Your task to perform on an android device: toggle javascript in the chrome app Image 0: 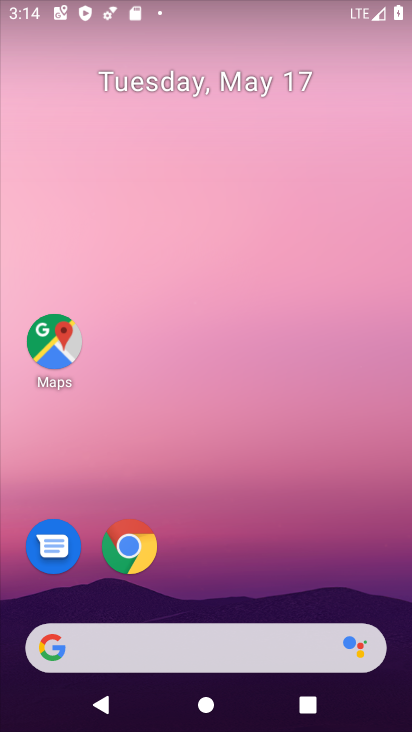
Step 0: press home button
Your task to perform on an android device: toggle javascript in the chrome app Image 1: 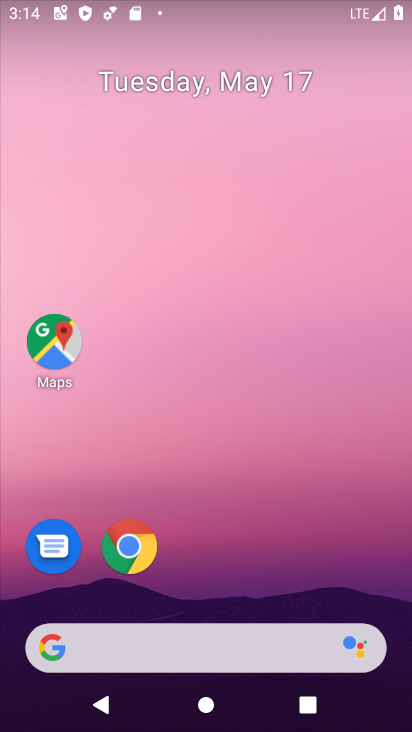
Step 1: press home button
Your task to perform on an android device: toggle javascript in the chrome app Image 2: 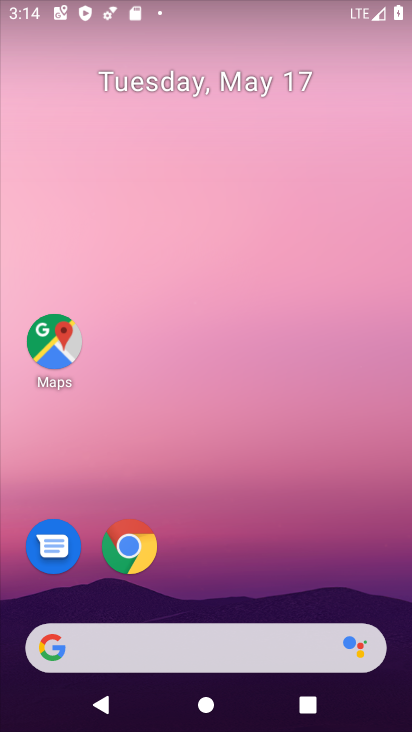
Step 2: click (130, 558)
Your task to perform on an android device: toggle javascript in the chrome app Image 3: 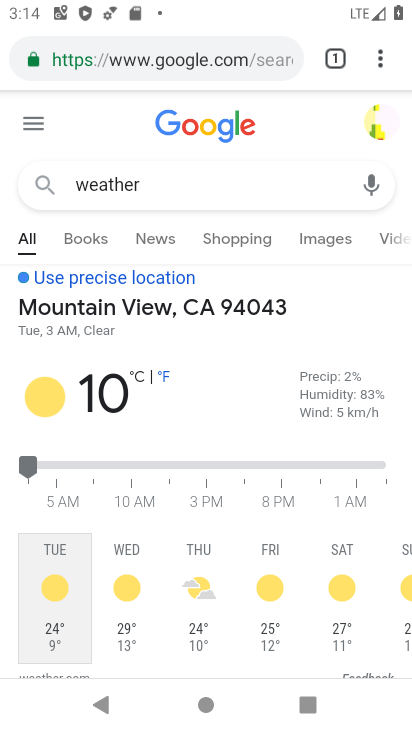
Step 3: drag from (376, 50) to (215, 576)
Your task to perform on an android device: toggle javascript in the chrome app Image 4: 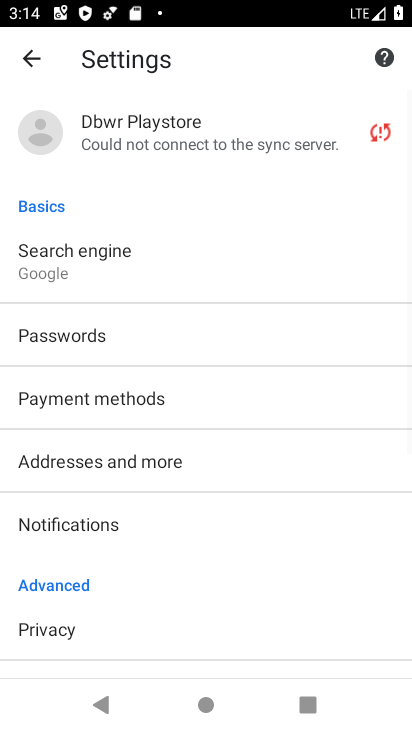
Step 4: drag from (169, 574) to (144, 119)
Your task to perform on an android device: toggle javascript in the chrome app Image 5: 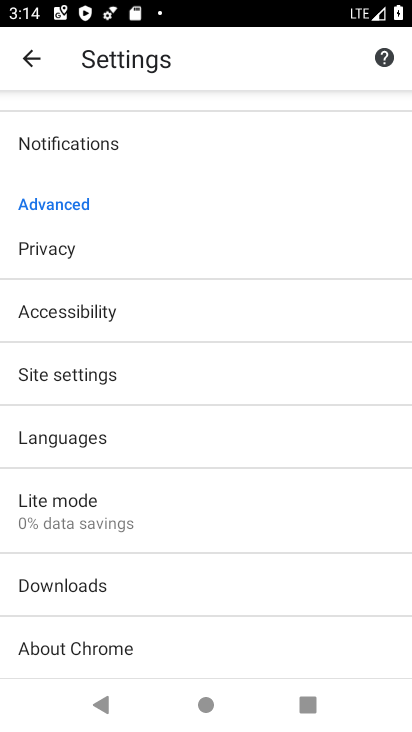
Step 5: click (68, 392)
Your task to perform on an android device: toggle javascript in the chrome app Image 6: 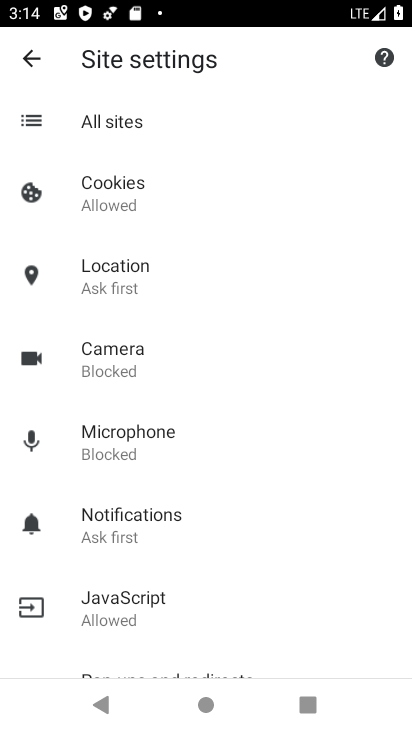
Step 6: click (137, 585)
Your task to perform on an android device: toggle javascript in the chrome app Image 7: 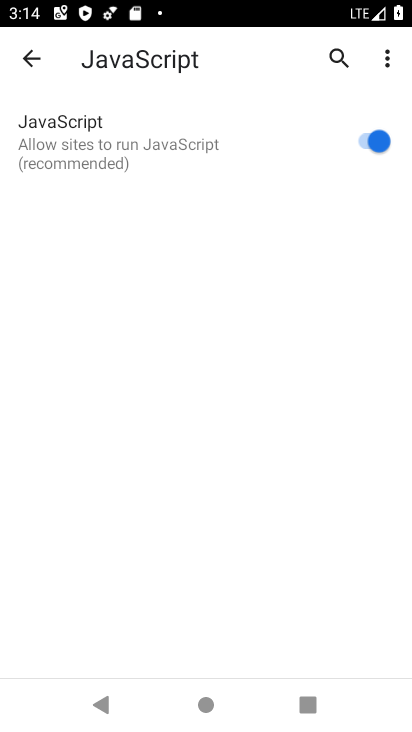
Step 7: click (387, 137)
Your task to perform on an android device: toggle javascript in the chrome app Image 8: 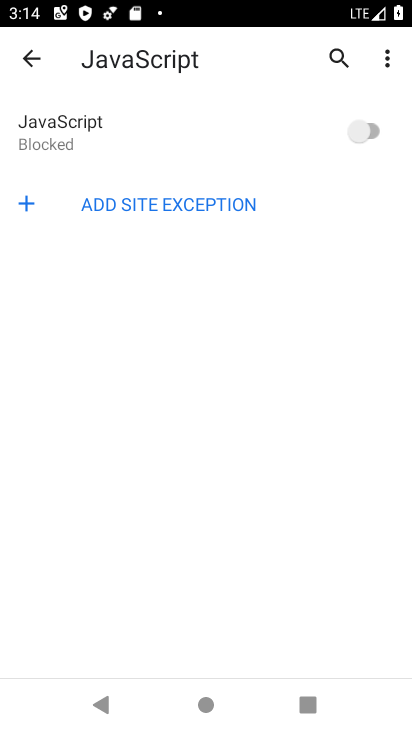
Step 8: task complete